Your task to perform on an android device: Open calendar and show me the third week of next month Image 0: 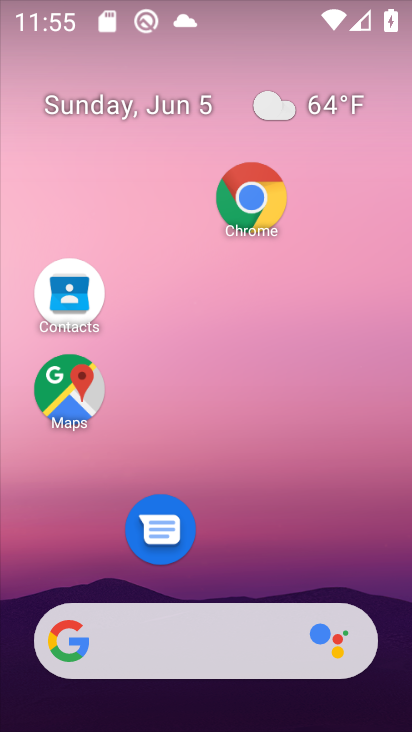
Step 0: drag from (273, 533) to (234, 103)
Your task to perform on an android device: Open calendar and show me the third week of next month Image 1: 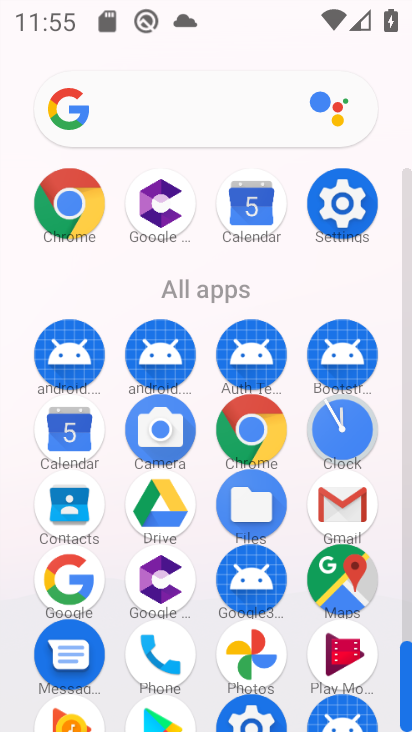
Step 1: click (70, 434)
Your task to perform on an android device: Open calendar and show me the third week of next month Image 2: 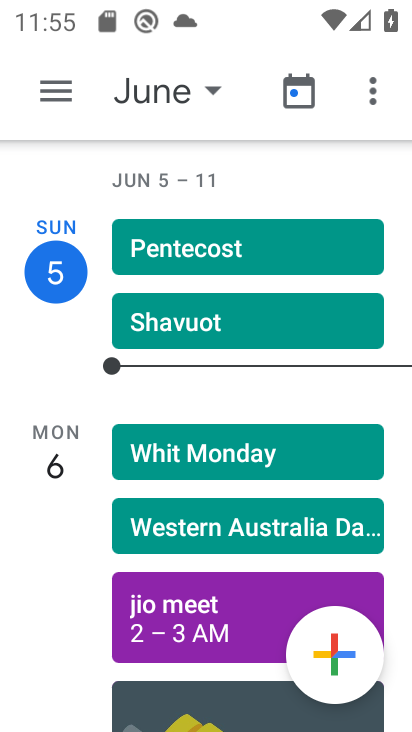
Step 2: click (148, 89)
Your task to perform on an android device: Open calendar and show me the third week of next month Image 3: 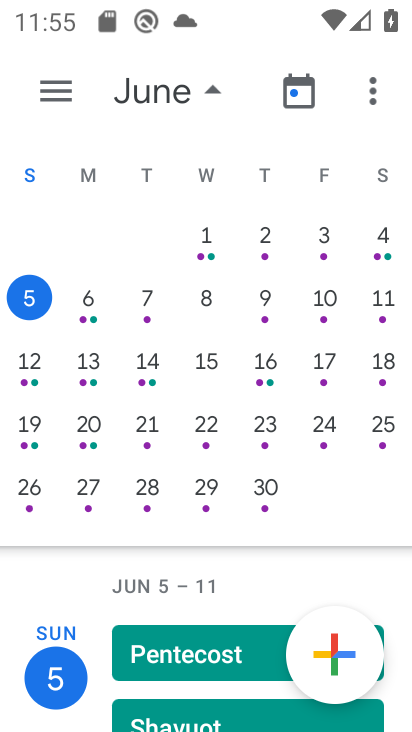
Step 3: drag from (386, 332) to (0, 321)
Your task to perform on an android device: Open calendar and show me the third week of next month Image 4: 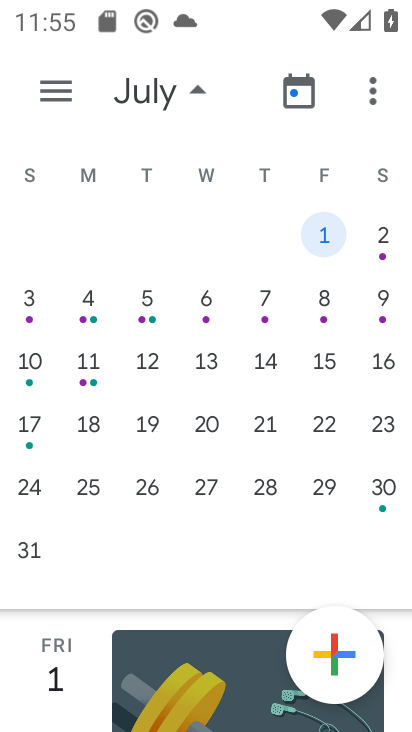
Step 4: click (26, 361)
Your task to perform on an android device: Open calendar and show me the third week of next month Image 5: 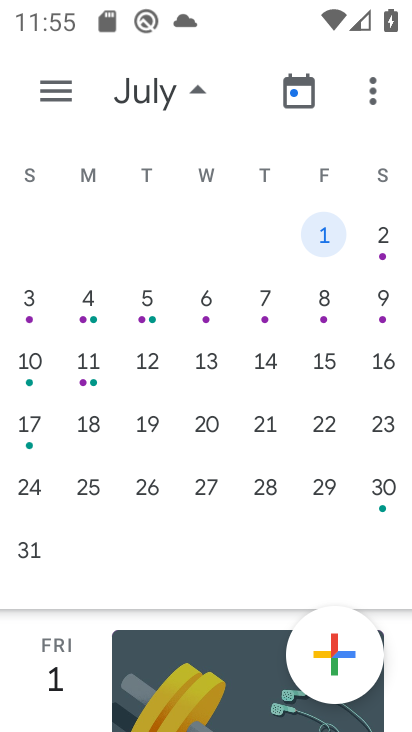
Step 5: click (43, 365)
Your task to perform on an android device: Open calendar and show me the third week of next month Image 6: 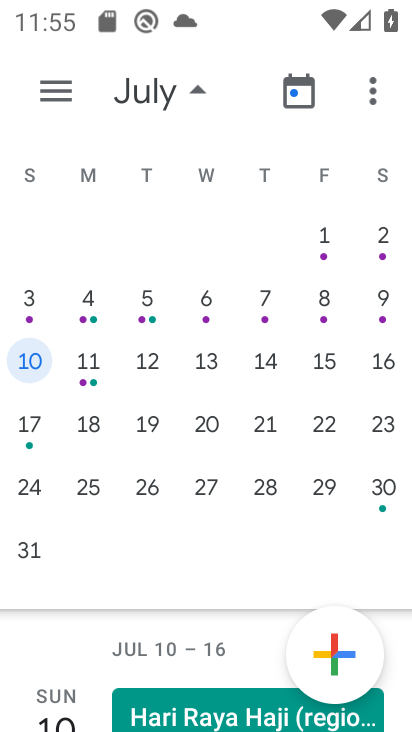
Step 6: task complete